Your task to perform on an android device: What's the news in French Guiana? Image 0: 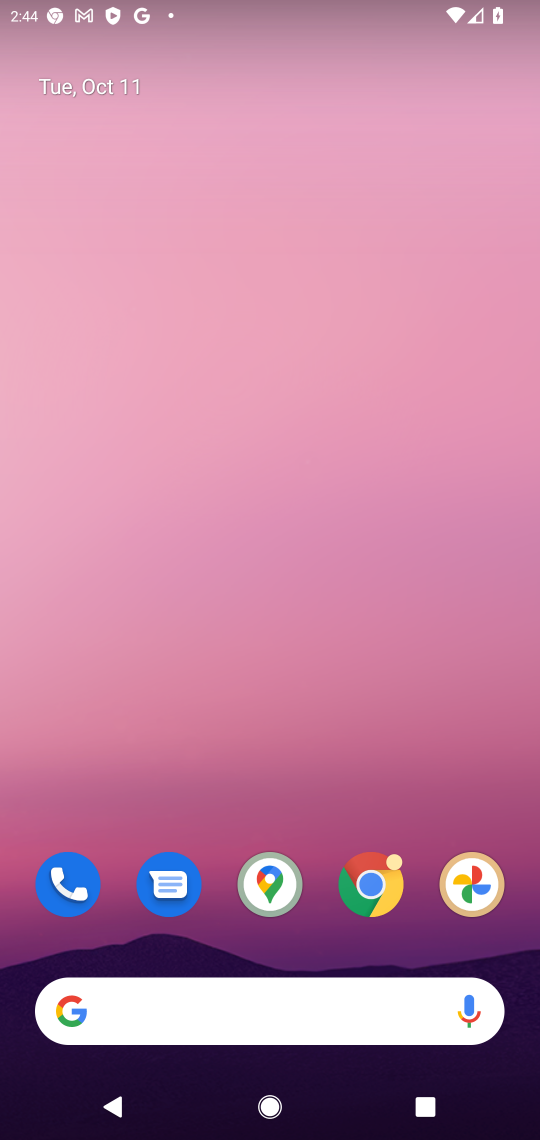
Step 0: click (371, 885)
Your task to perform on an android device: What's the news in French Guiana? Image 1: 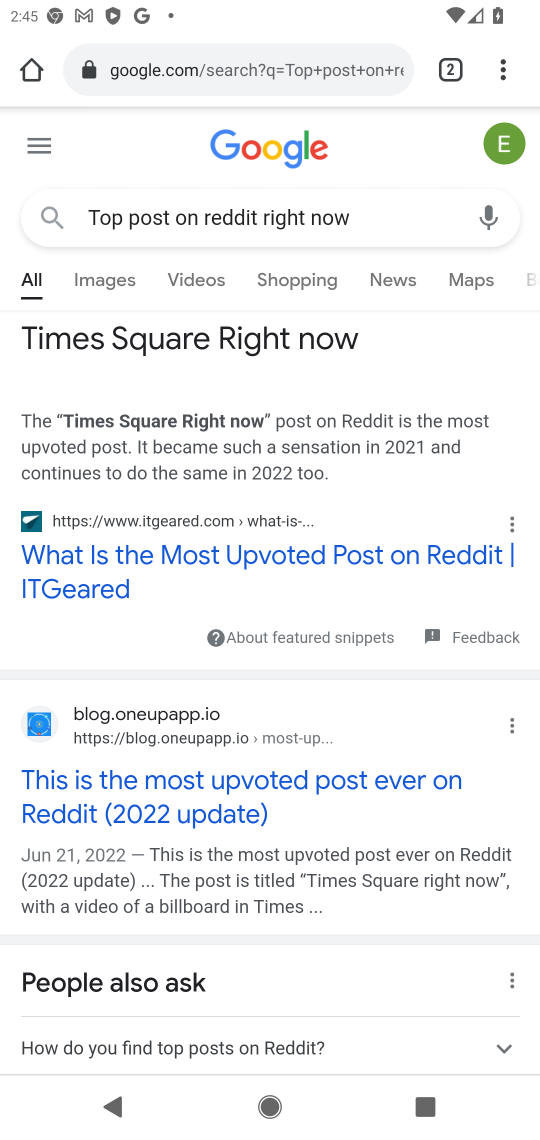
Step 1: click (298, 78)
Your task to perform on an android device: What's the news in French Guiana? Image 2: 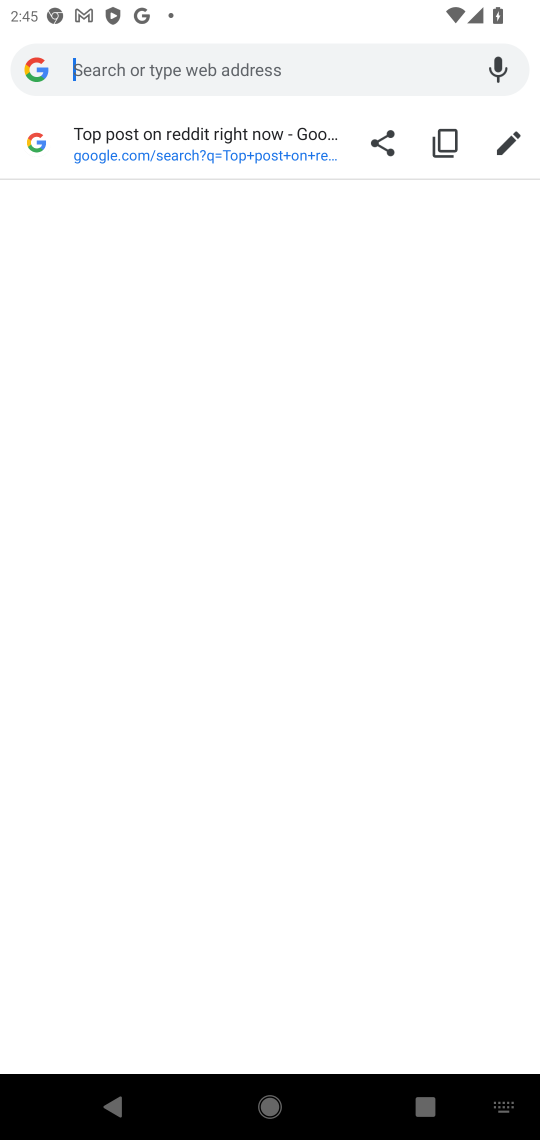
Step 2: type "What's the news in French Guiana"
Your task to perform on an android device: What's the news in French Guiana? Image 3: 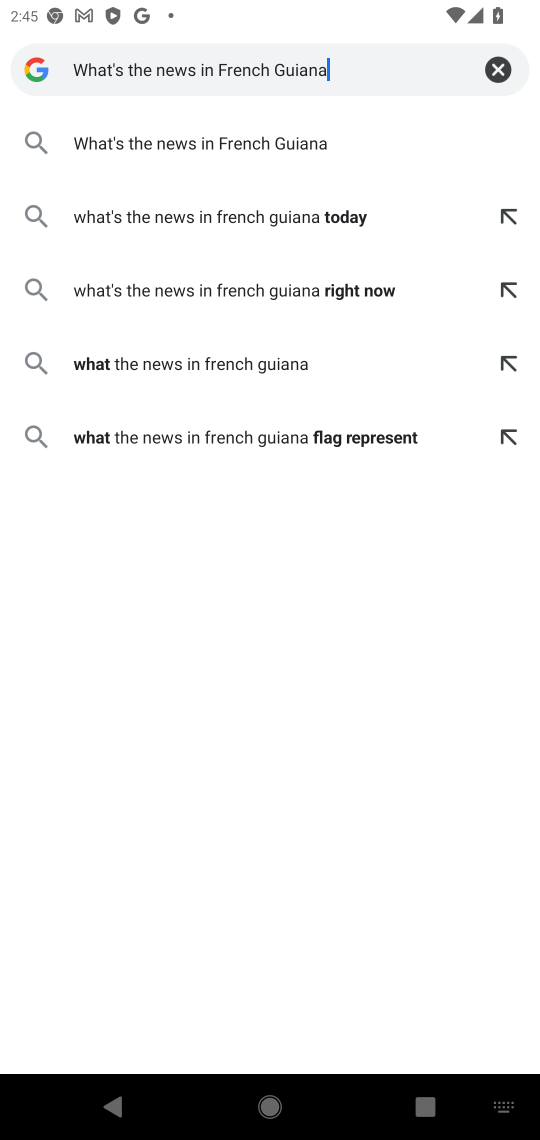
Step 3: click (281, 145)
Your task to perform on an android device: What's the news in French Guiana? Image 4: 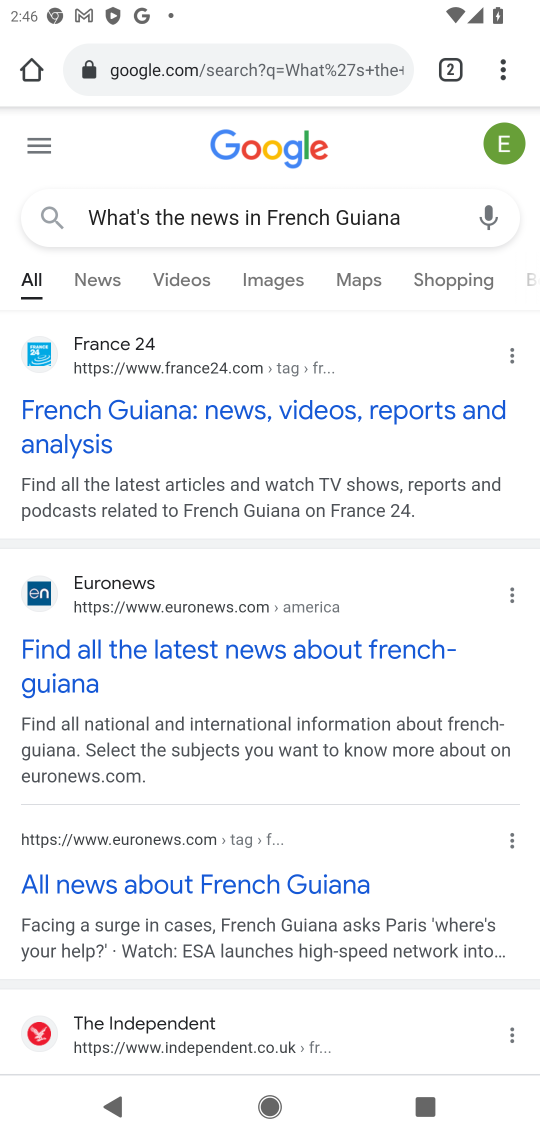
Step 4: click (385, 407)
Your task to perform on an android device: What's the news in French Guiana? Image 5: 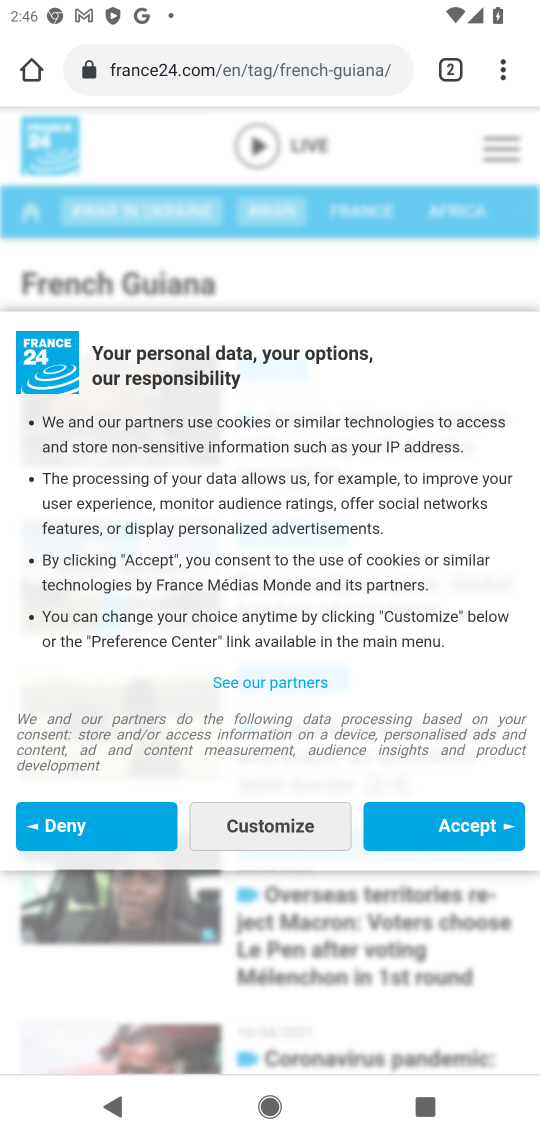
Step 5: click (476, 826)
Your task to perform on an android device: What's the news in French Guiana? Image 6: 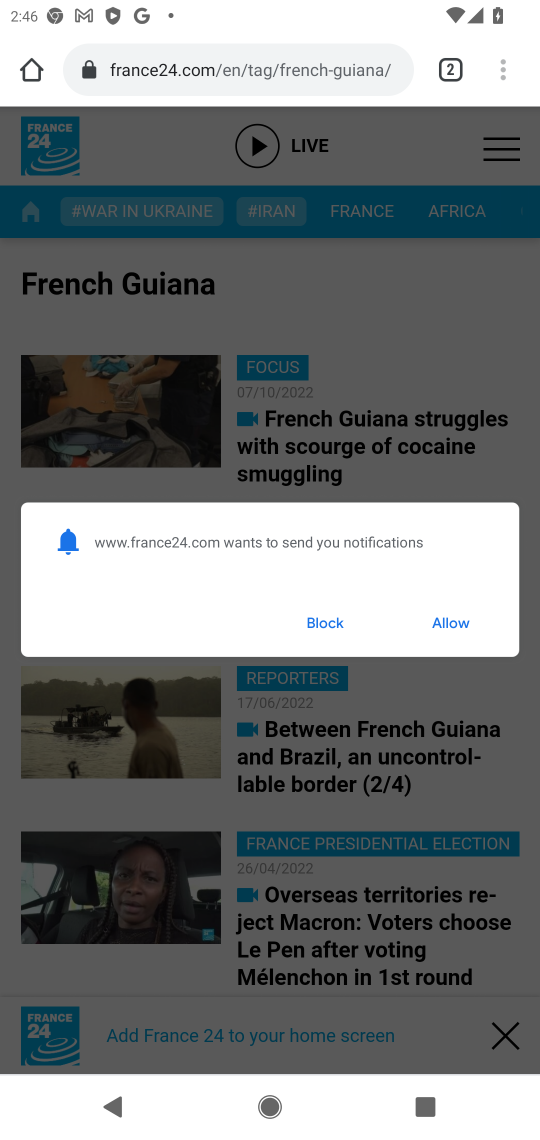
Step 6: click (450, 626)
Your task to perform on an android device: What's the news in French Guiana? Image 7: 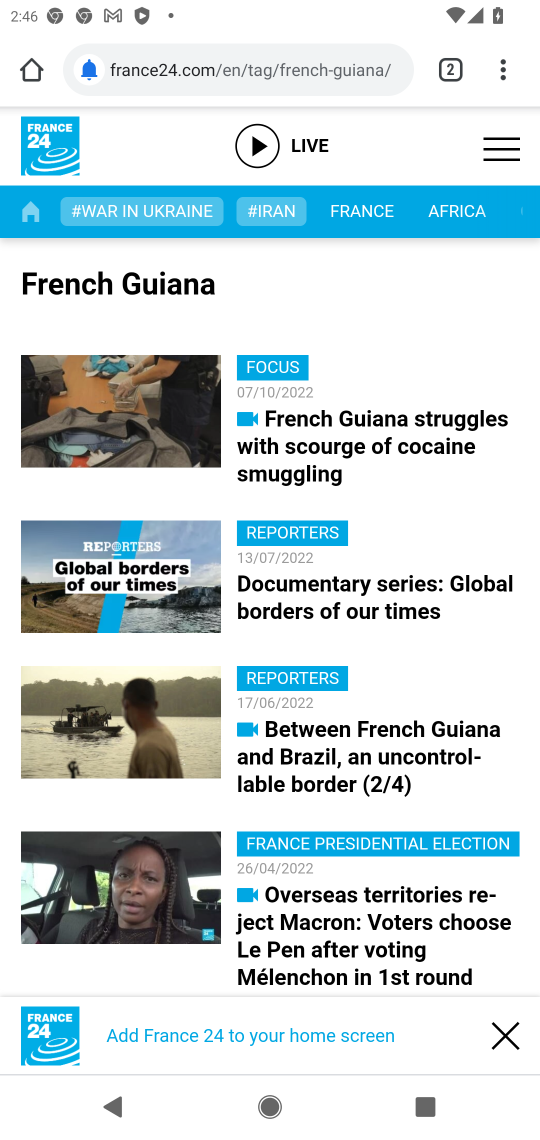
Step 7: task complete